Your task to perform on an android device: open the mobile data screen to see how much data has been used Image 0: 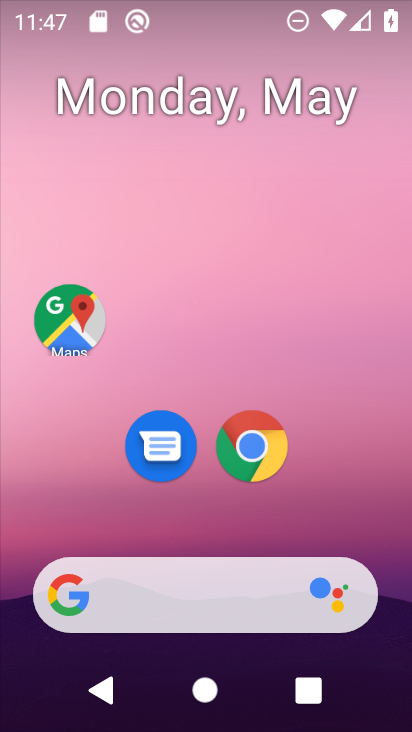
Step 0: drag from (302, 516) to (297, 104)
Your task to perform on an android device: open the mobile data screen to see how much data has been used Image 1: 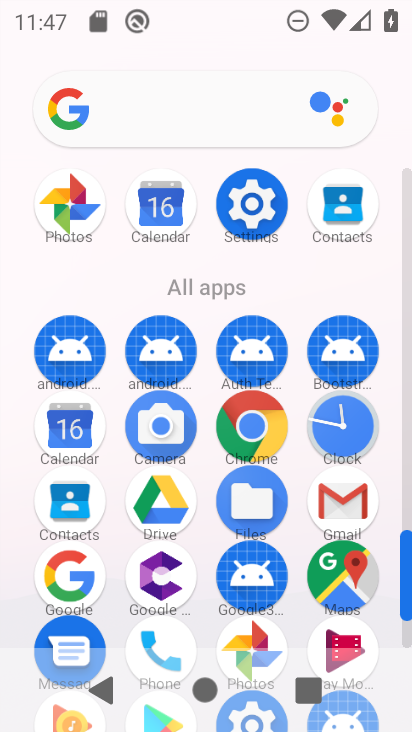
Step 1: click (248, 205)
Your task to perform on an android device: open the mobile data screen to see how much data has been used Image 2: 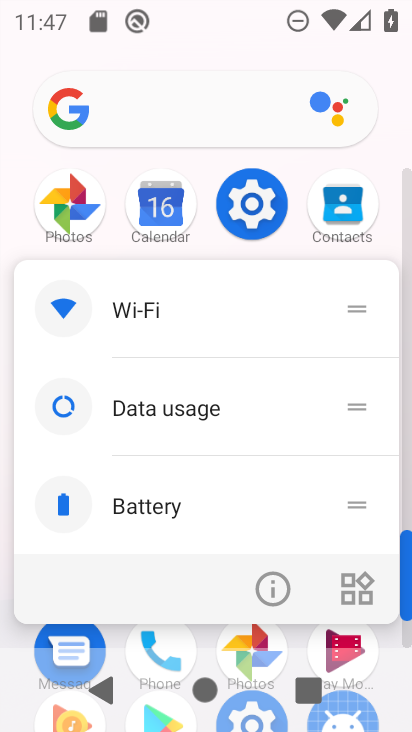
Step 2: click (177, 402)
Your task to perform on an android device: open the mobile data screen to see how much data has been used Image 3: 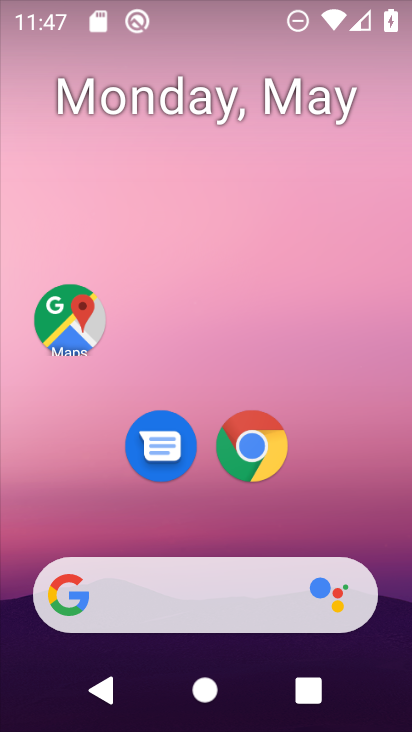
Step 3: drag from (297, 512) to (261, 149)
Your task to perform on an android device: open the mobile data screen to see how much data has been used Image 4: 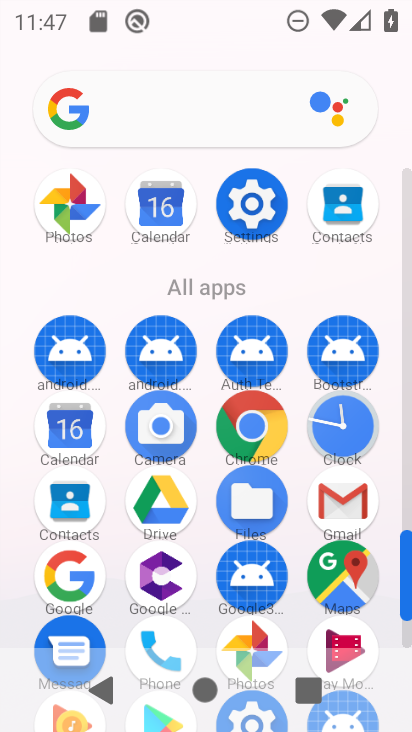
Step 4: click (250, 205)
Your task to perform on an android device: open the mobile data screen to see how much data has been used Image 5: 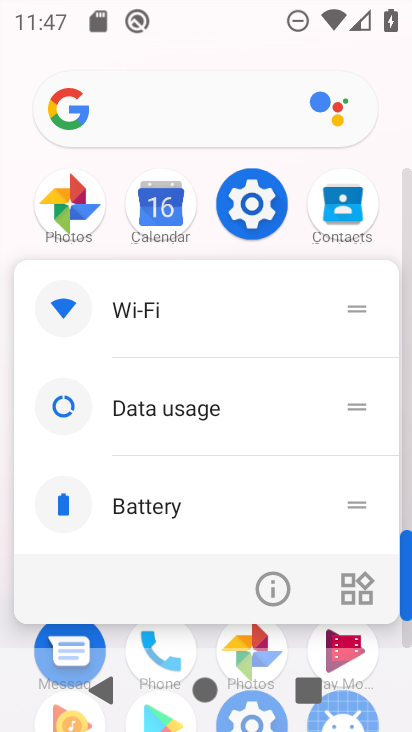
Step 5: click (151, 403)
Your task to perform on an android device: open the mobile data screen to see how much data has been used Image 6: 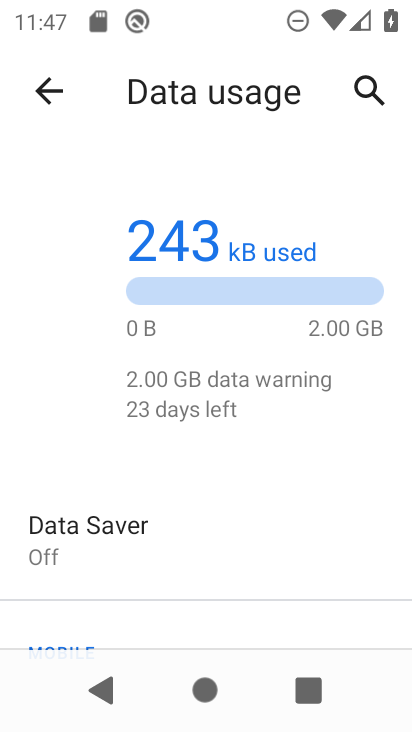
Step 6: task complete